Your task to perform on an android device: Go to Amazon Image 0: 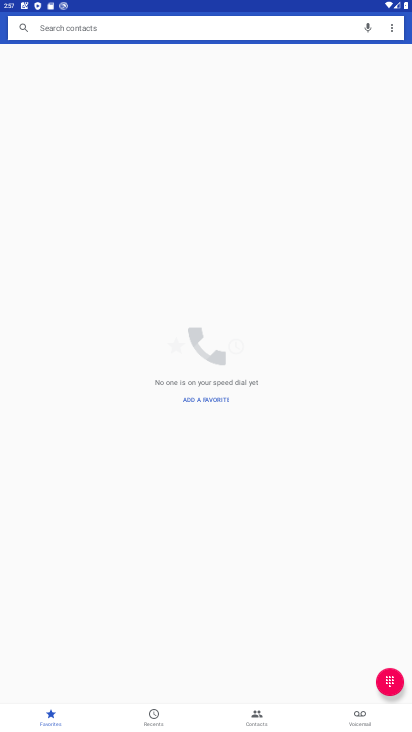
Step 0: press home button
Your task to perform on an android device: Go to Amazon Image 1: 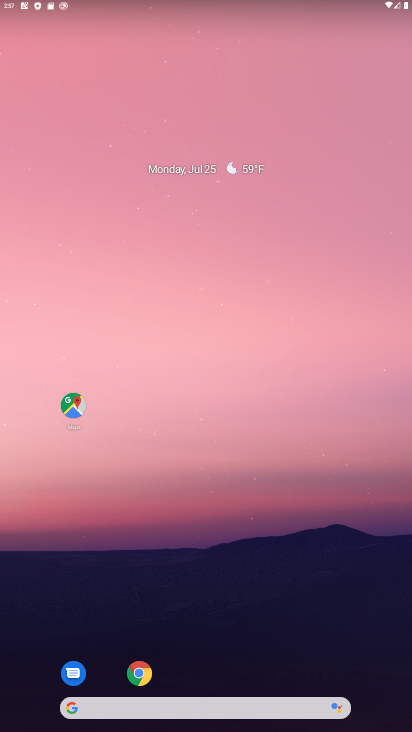
Step 1: click (143, 676)
Your task to perform on an android device: Go to Amazon Image 2: 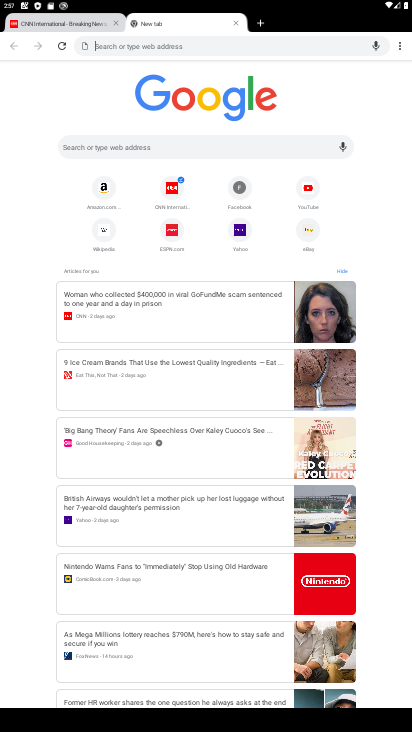
Step 2: click (104, 195)
Your task to perform on an android device: Go to Amazon Image 3: 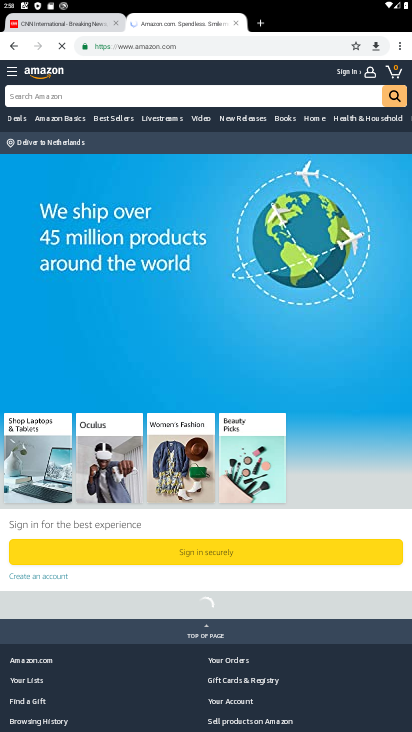
Step 3: task complete